Your task to perform on an android device: turn on airplane mode Image 0: 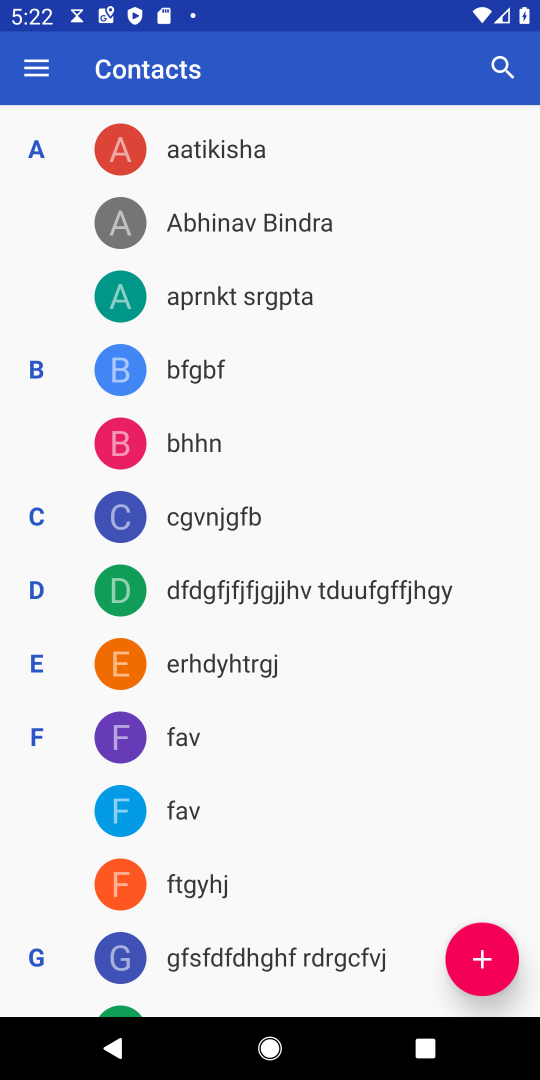
Step 0: press home button
Your task to perform on an android device: turn on airplane mode Image 1: 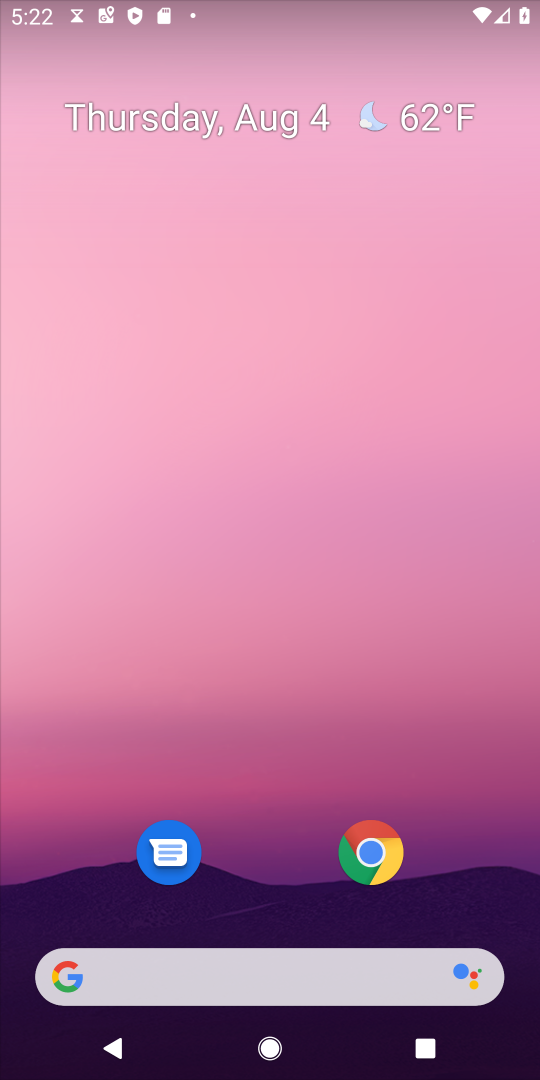
Step 1: drag from (260, 912) to (255, 119)
Your task to perform on an android device: turn on airplane mode Image 2: 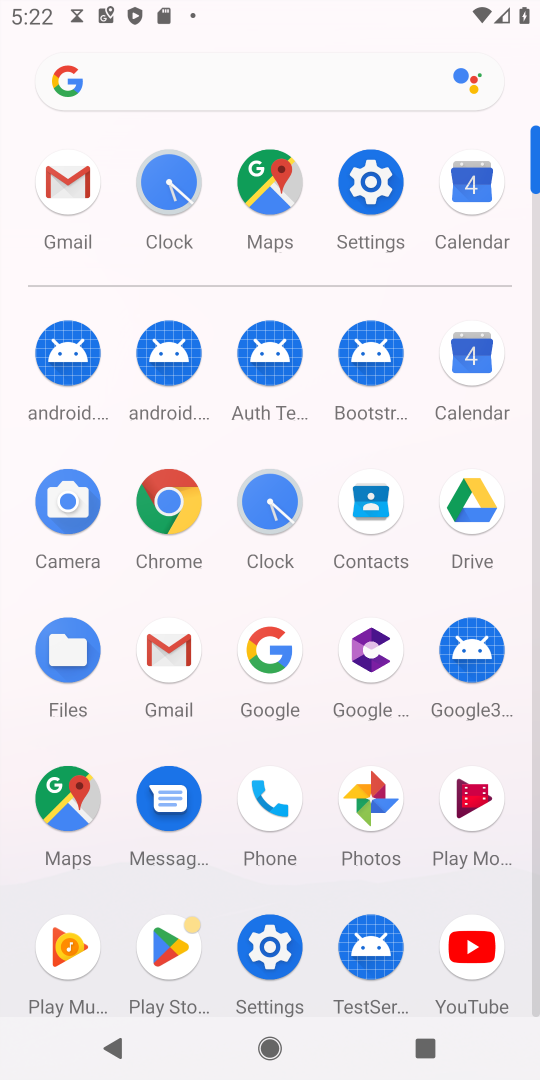
Step 2: click (372, 193)
Your task to perform on an android device: turn on airplane mode Image 3: 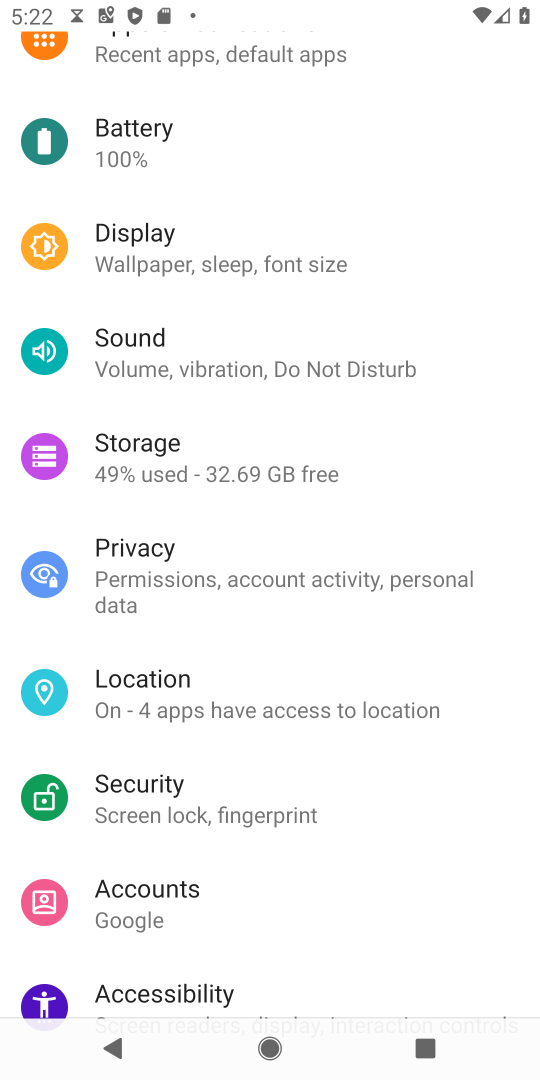
Step 3: drag from (146, 118) to (153, 818)
Your task to perform on an android device: turn on airplane mode Image 4: 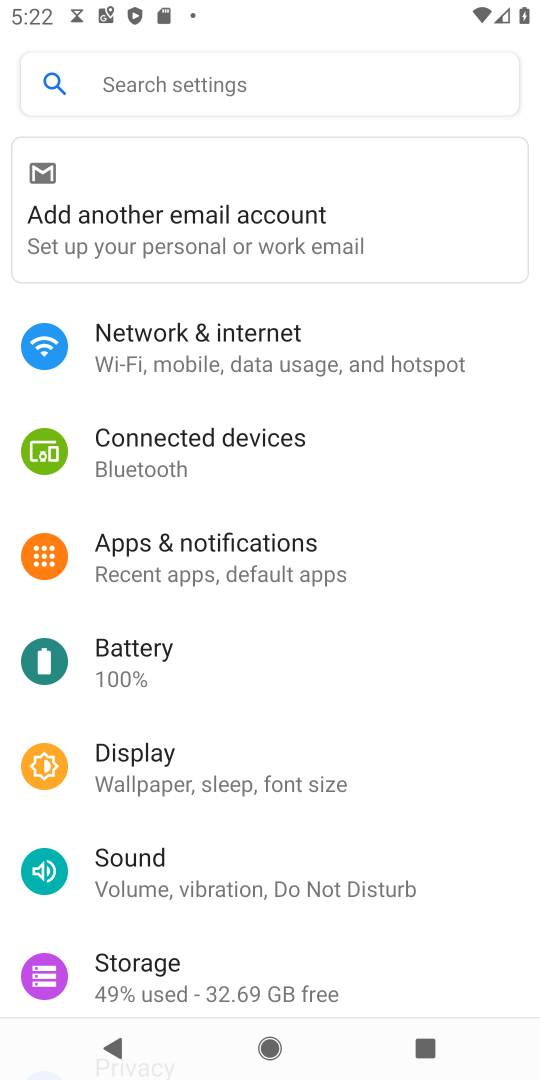
Step 4: click (202, 355)
Your task to perform on an android device: turn on airplane mode Image 5: 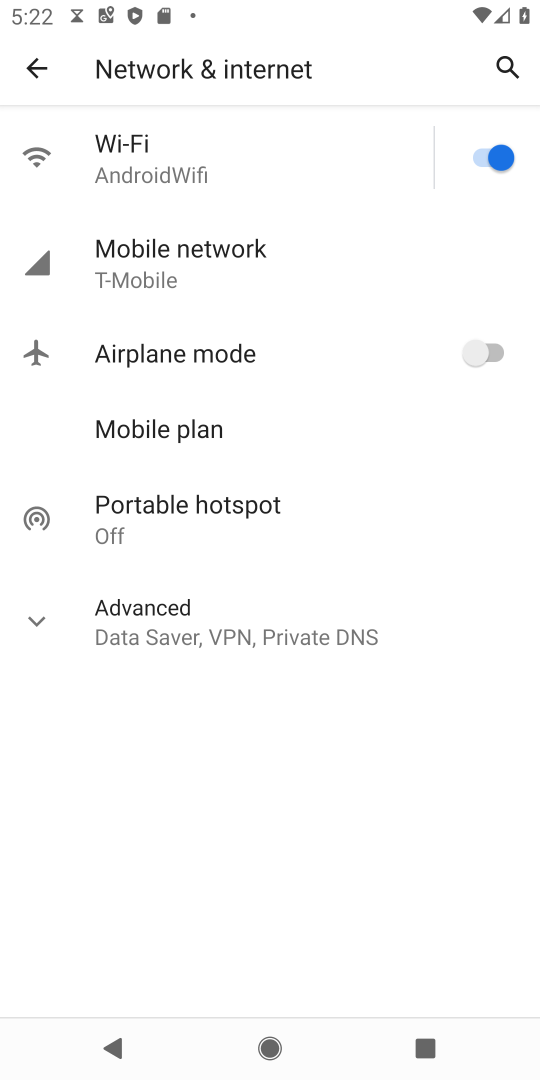
Step 5: click (491, 350)
Your task to perform on an android device: turn on airplane mode Image 6: 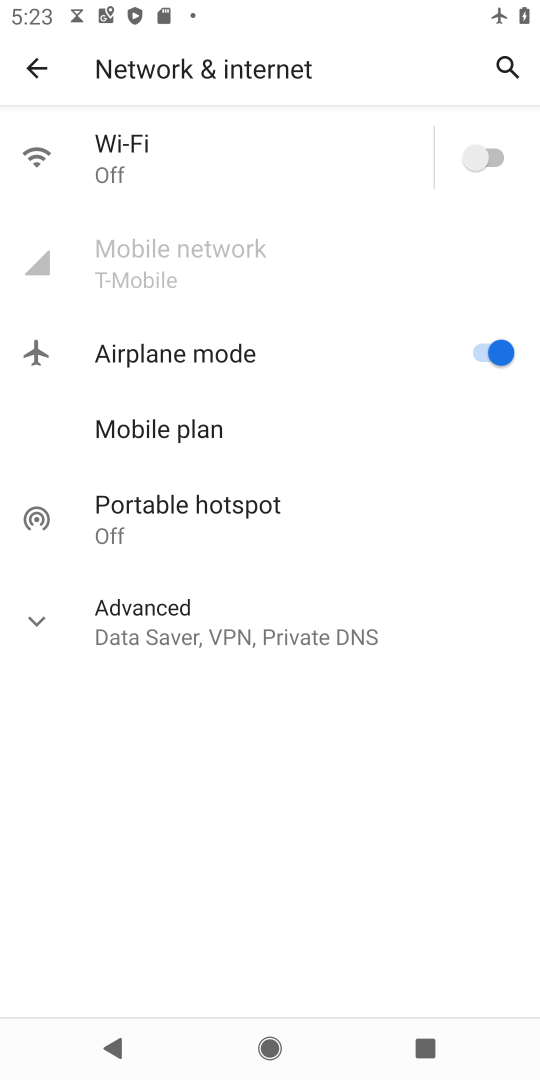
Step 6: task complete